Your task to perform on an android device: Show me some nice wallpapers for my phone Image 0: 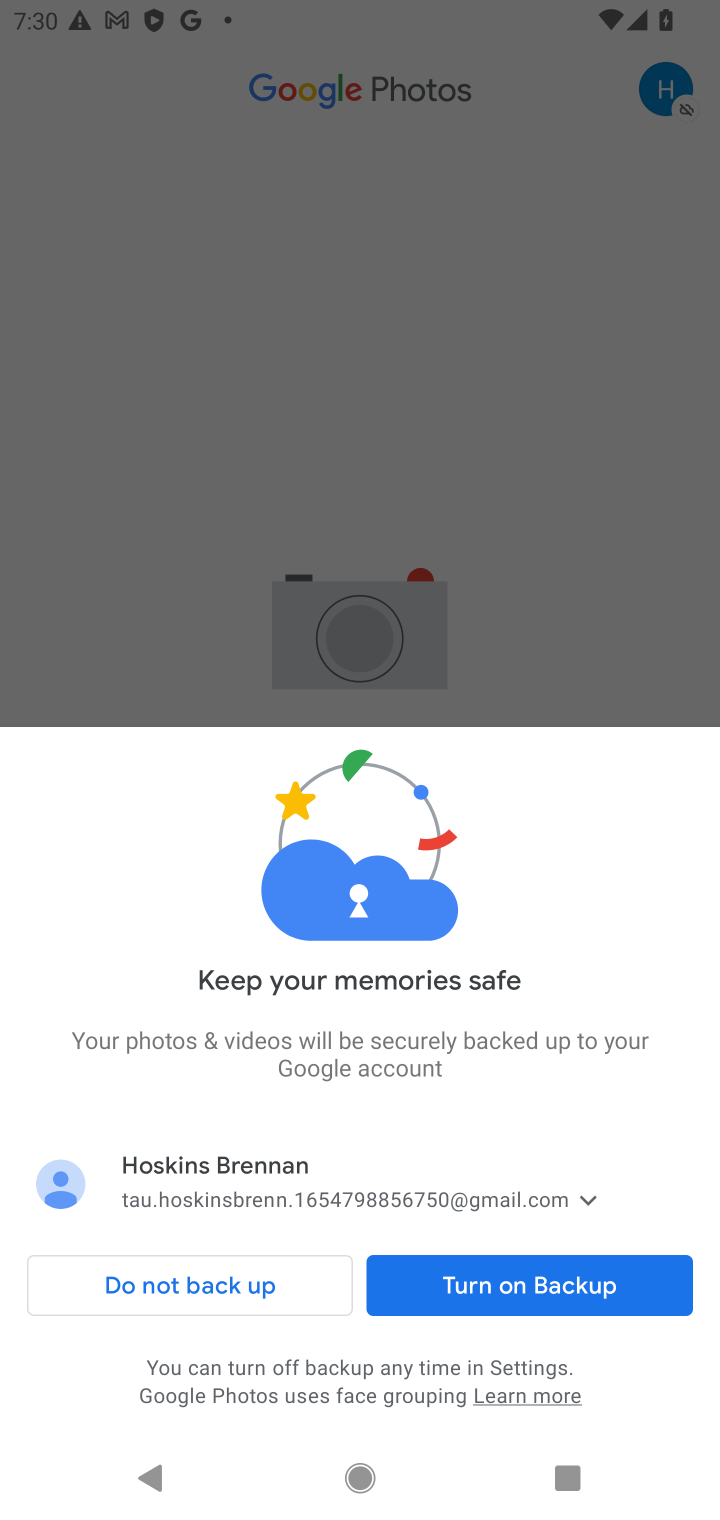
Step 0: press home button
Your task to perform on an android device: Show me some nice wallpapers for my phone Image 1: 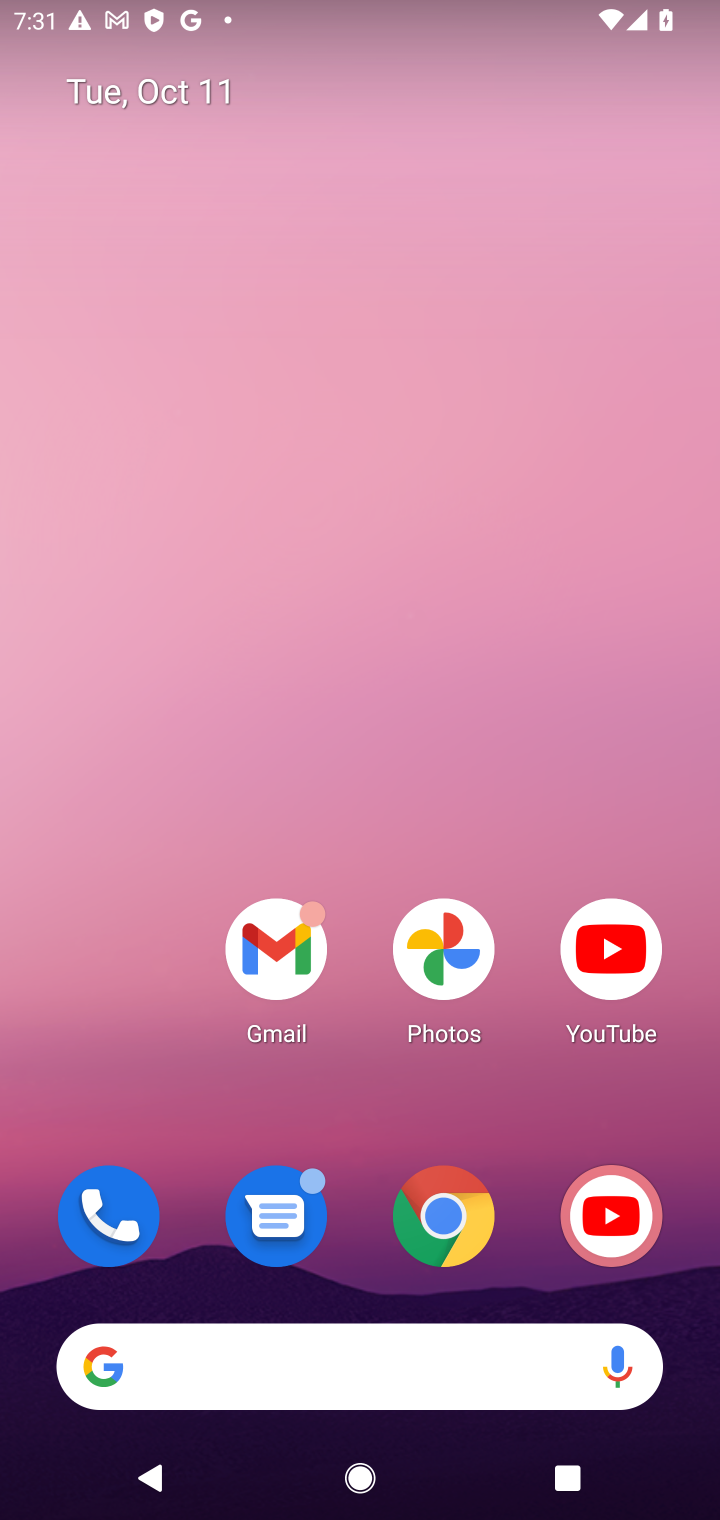
Step 1: click (437, 1227)
Your task to perform on an android device: Show me some nice wallpapers for my phone Image 2: 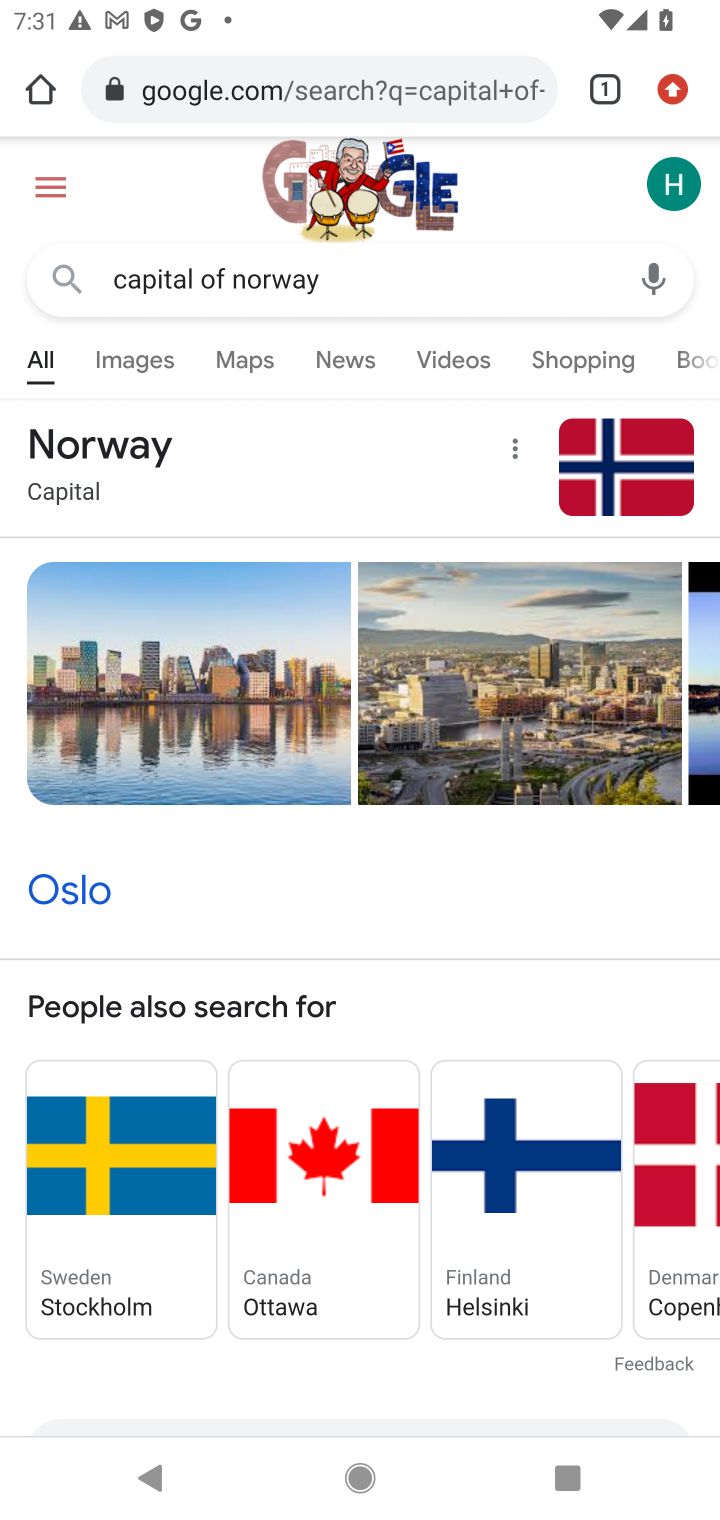
Step 2: click (403, 289)
Your task to perform on an android device: Show me some nice wallpapers for my phone Image 3: 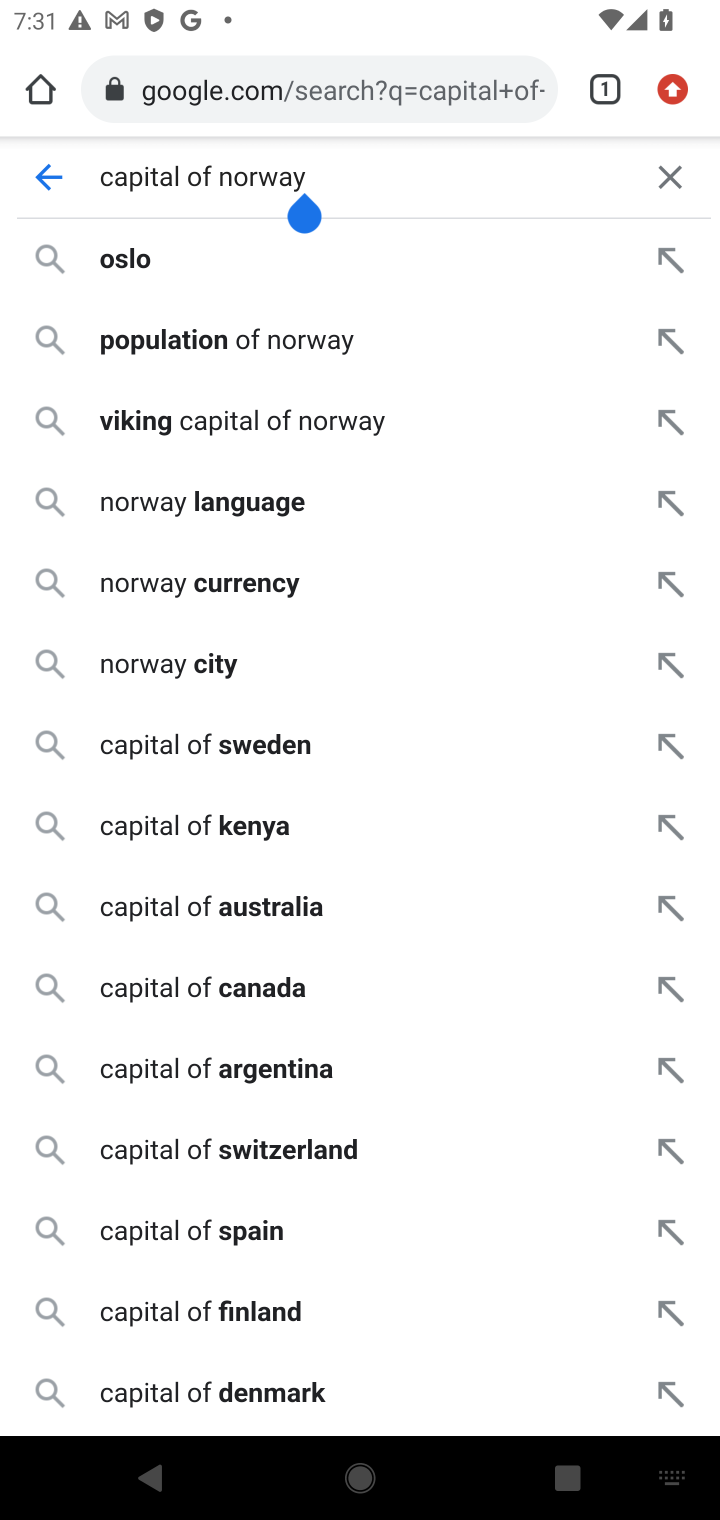
Step 3: click (668, 173)
Your task to perform on an android device: Show me some nice wallpapers for my phone Image 4: 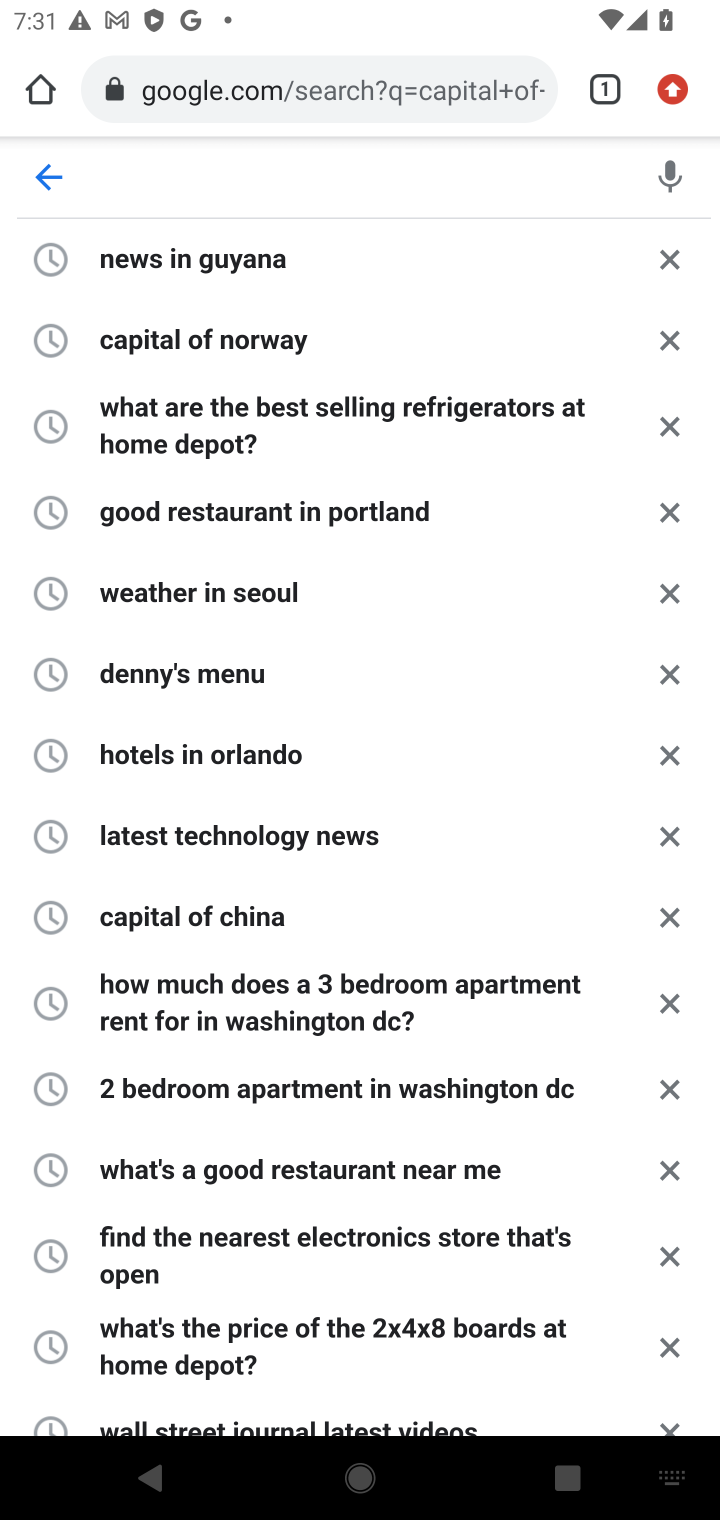
Step 4: type "Show me some nice wallpapers for my phone"
Your task to perform on an android device: Show me some nice wallpapers for my phone Image 5: 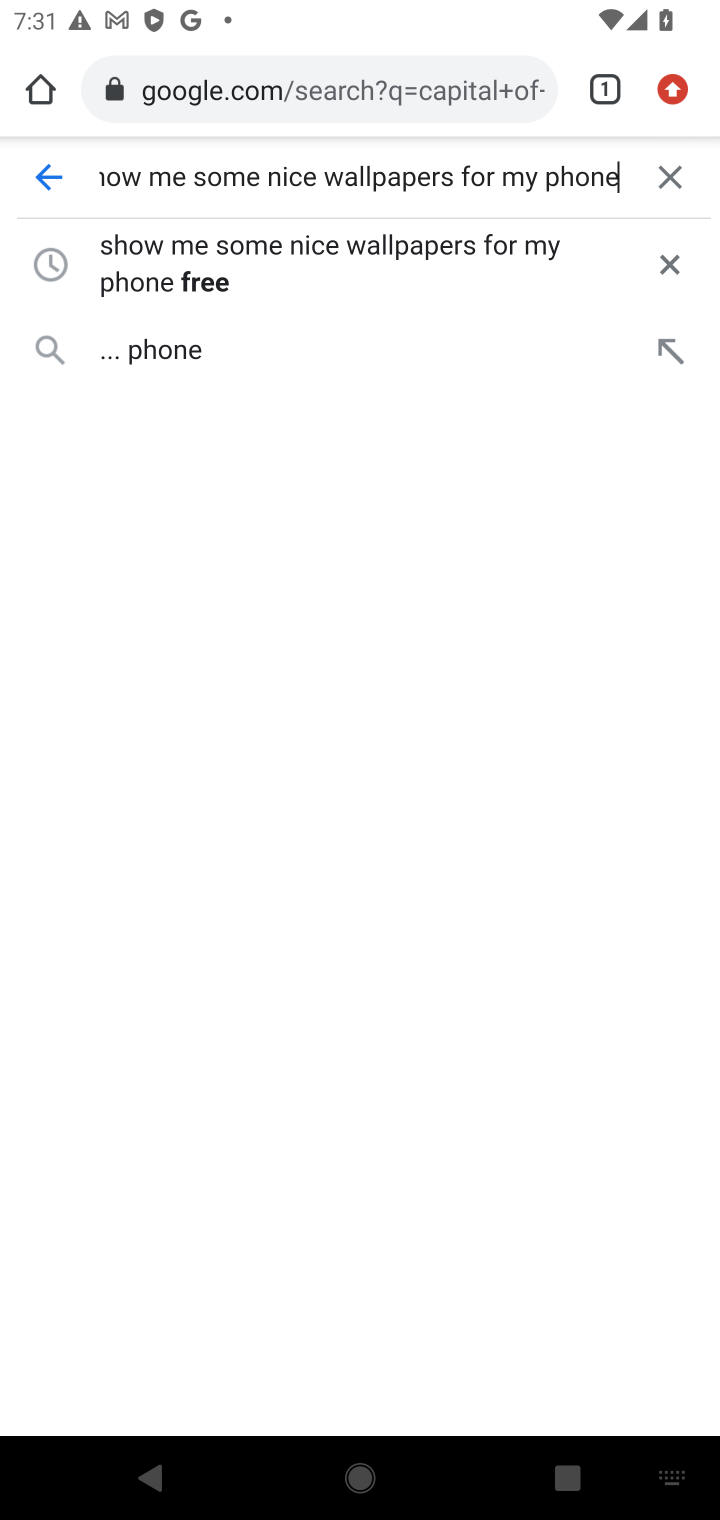
Step 5: press enter
Your task to perform on an android device: Show me some nice wallpapers for my phone Image 6: 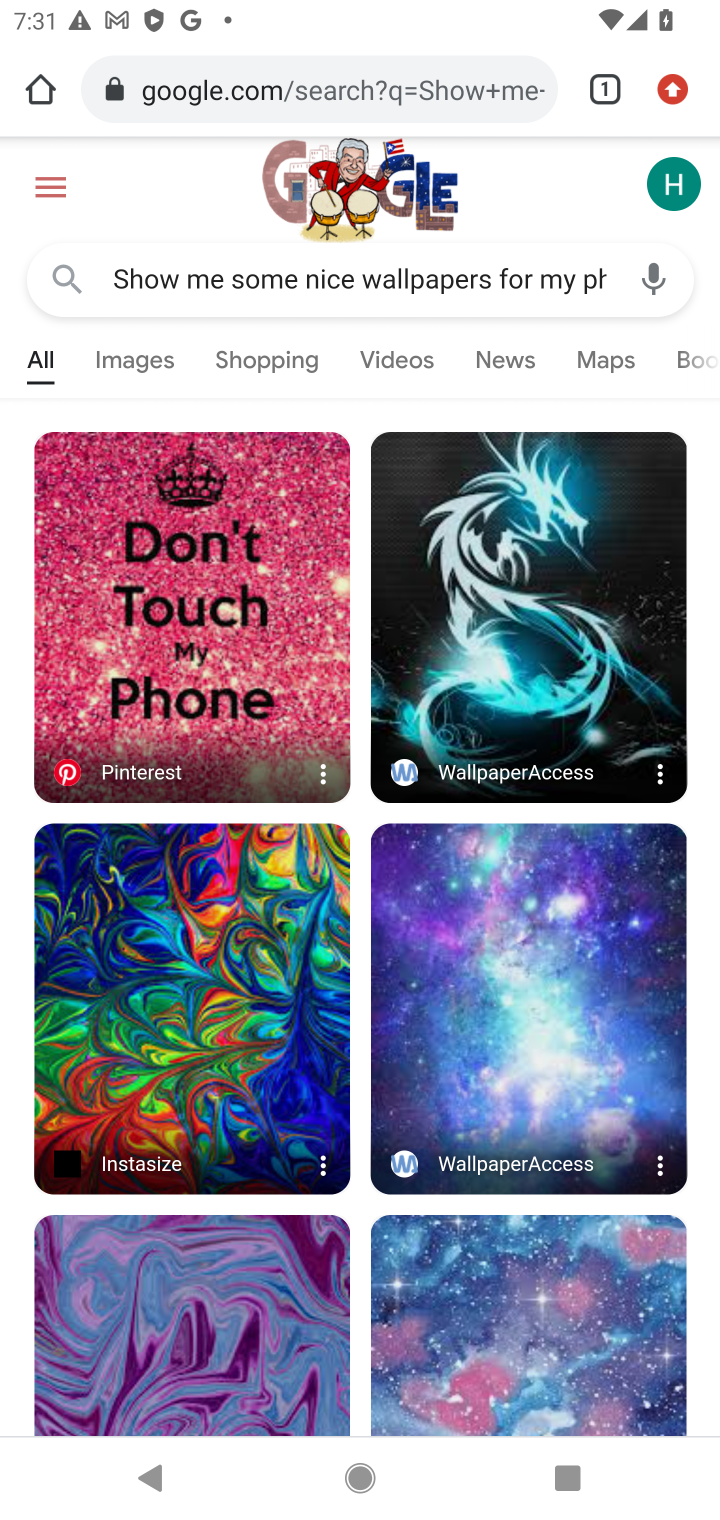
Step 6: task complete